Your task to perform on an android device: turn vacation reply on in the gmail app Image 0: 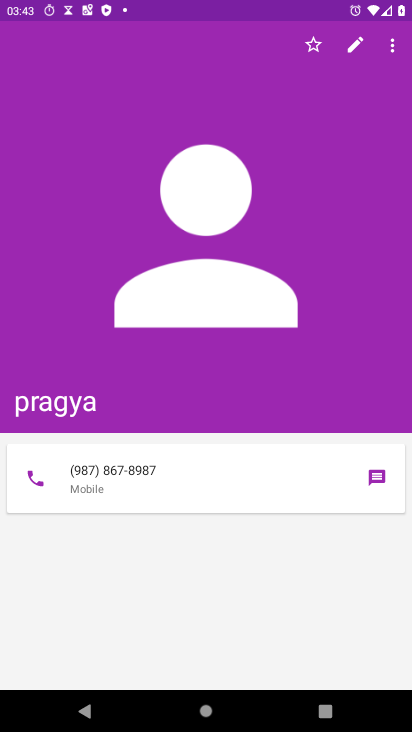
Step 0: press home button
Your task to perform on an android device: turn vacation reply on in the gmail app Image 1: 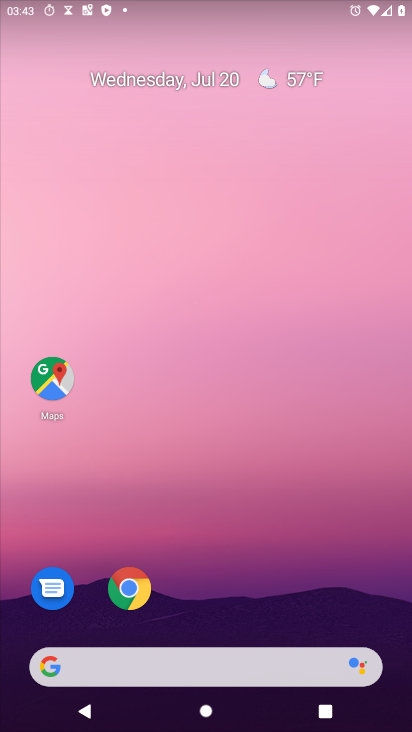
Step 1: drag from (260, 672) to (338, 9)
Your task to perform on an android device: turn vacation reply on in the gmail app Image 2: 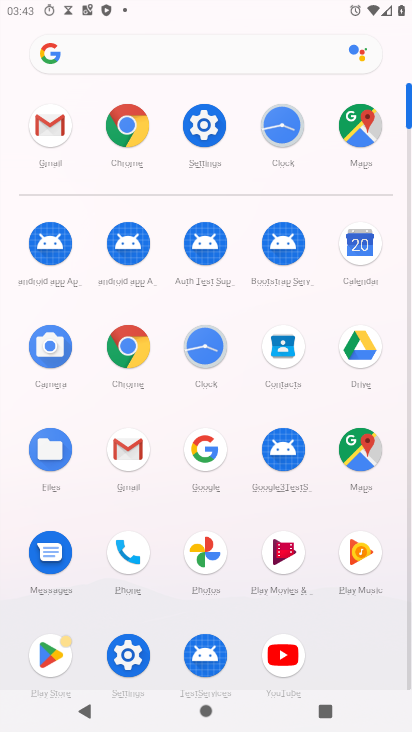
Step 2: click (139, 444)
Your task to perform on an android device: turn vacation reply on in the gmail app Image 3: 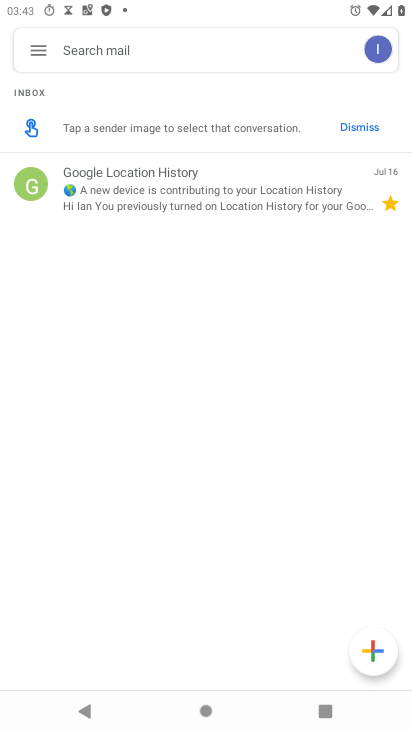
Step 3: click (40, 50)
Your task to perform on an android device: turn vacation reply on in the gmail app Image 4: 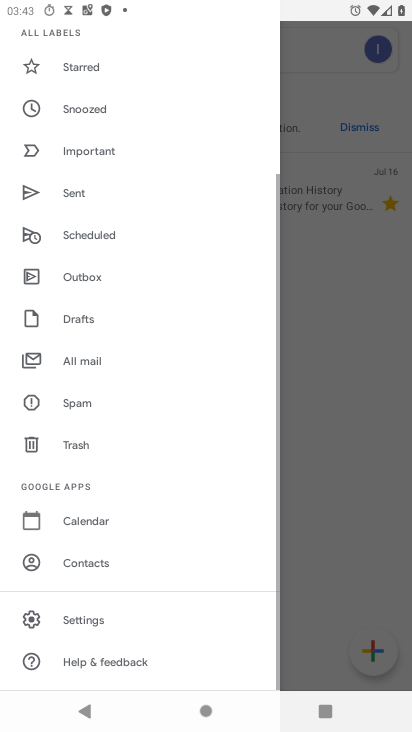
Step 4: click (151, 622)
Your task to perform on an android device: turn vacation reply on in the gmail app Image 5: 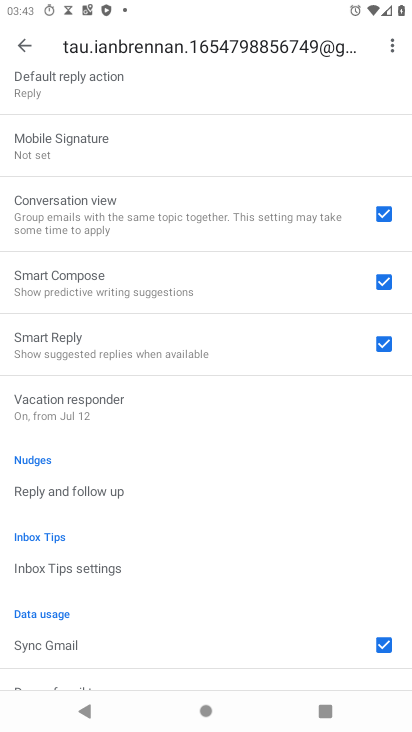
Step 5: click (148, 397)
Your task to perform on an android device: turn vacation reply on in the gmail app Image 6: 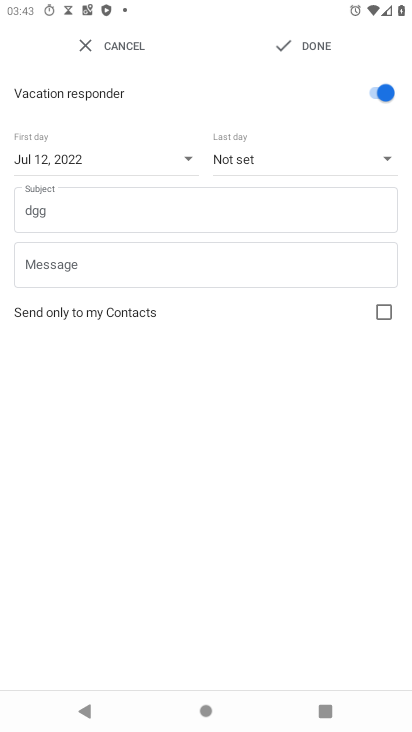
Step 6: click (320, 42)
Your task to perform on an android device: turn vacation reply on in the gmail app Image 7: 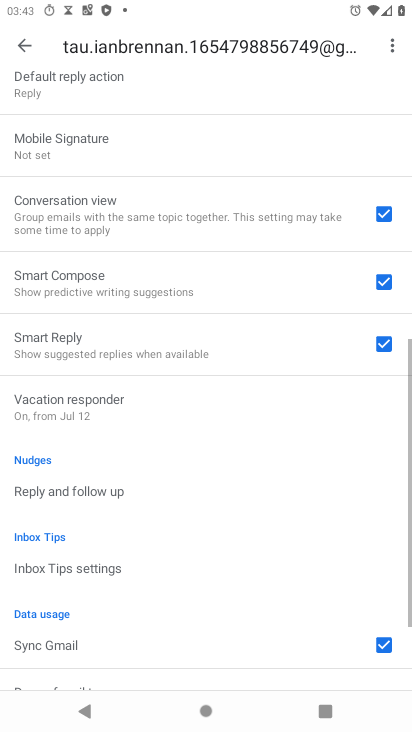
Step 7: task complete